Your task to perform on an android device: Go to Wikipedia Image 0: 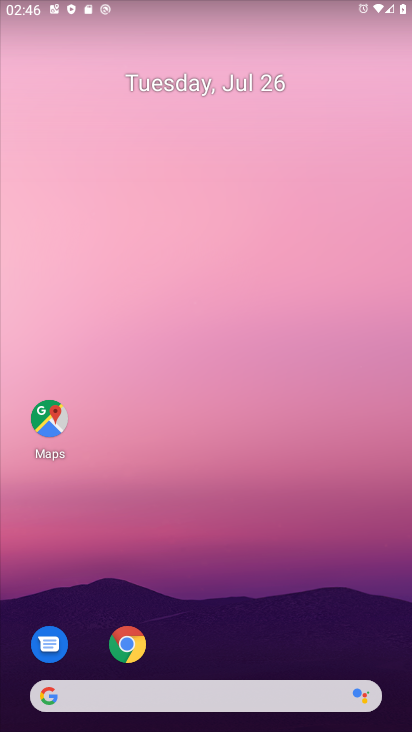
Step 0: click (140, 651)
Your task to perform on an android device: Go to Wikipedia Image 1: 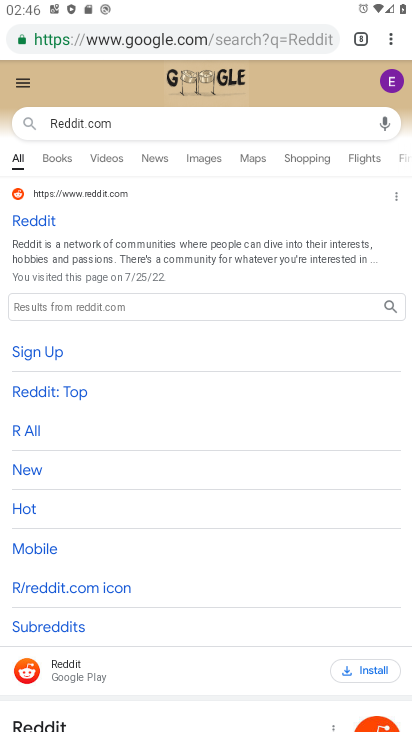
Step 1: click (397, 34)
Your task to perform on an android device: Go to Wikipedia Image 2: 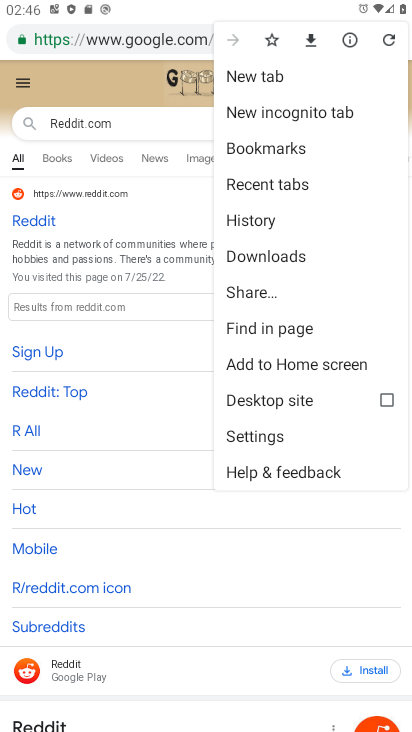
Step 2: click (252, 75)
Your task to perform on an android device: Go to Wikipedia Image 3: 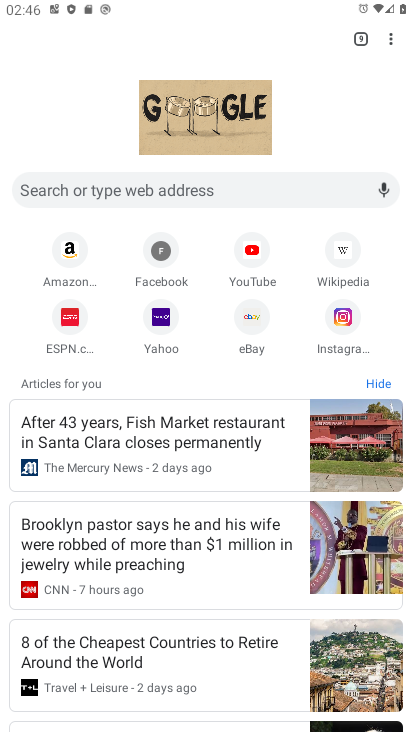
Step 3: click (346, 242)
Your task to perform on an android device: Go to Wikipedia Image 4: 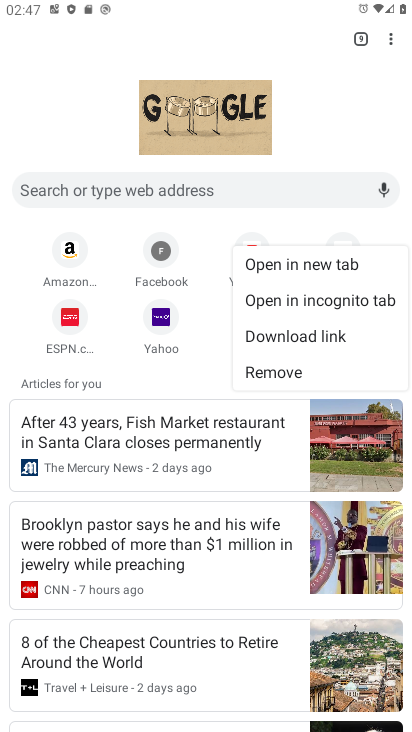
Step 4: click (199, 386)
Your task to perform on an android device: Go to Wikipedia Image 5: 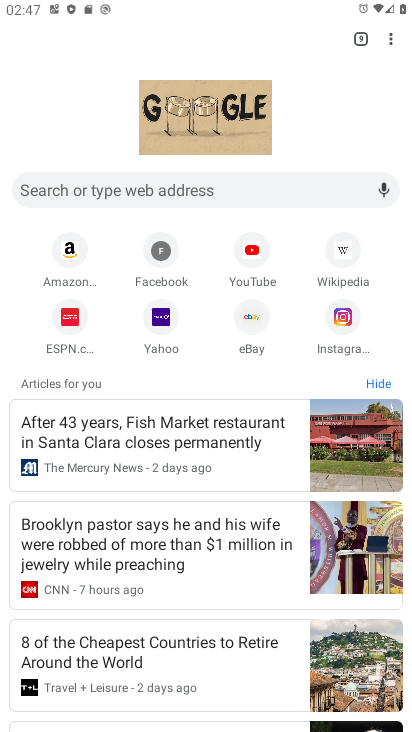
Step 5: click (348, 253)
Your task to perform on an android device: Go to Wikipedia Image 6: 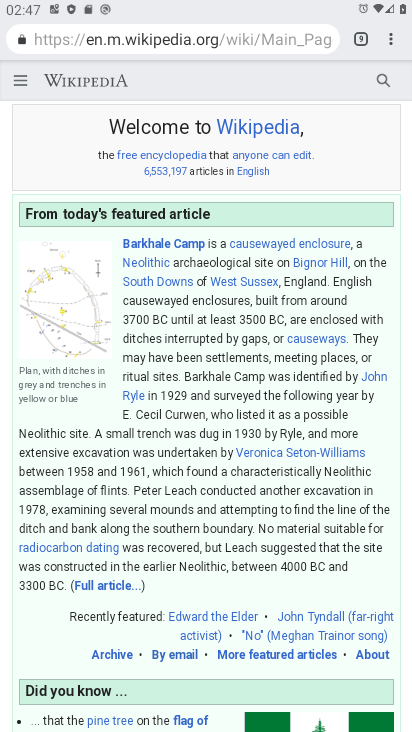
Step 6: task complete